Your task to perform on an android device: Go to ESPN.com Image 0: 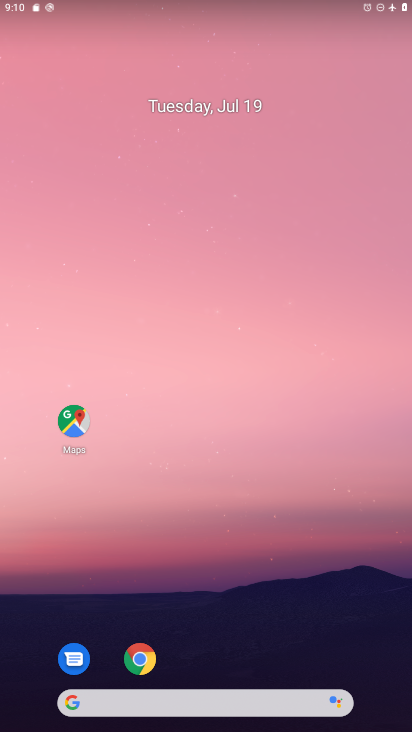
Step 0: drag from (245, 639) to (243, 282)
Your task to perform on an android device: Go to ESPN.com Image 1: 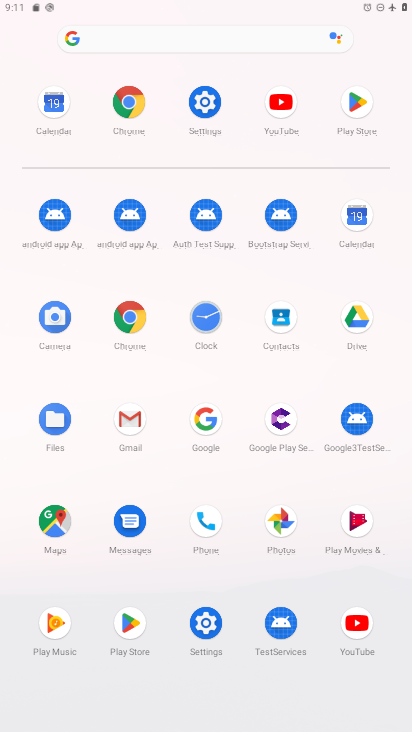
Step 1: click (137, 99)
Your task to perform on an android device: Go to ESPN.com Image 2: 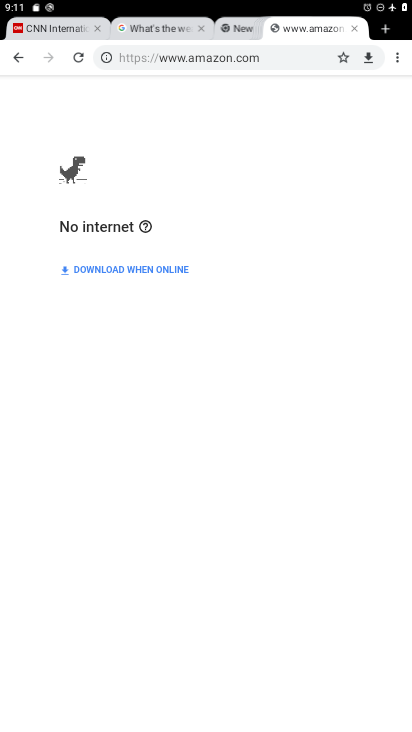
Step 2: click (385, 35)
Your task to perform on an android device: Go to ESPN.com Image 3: 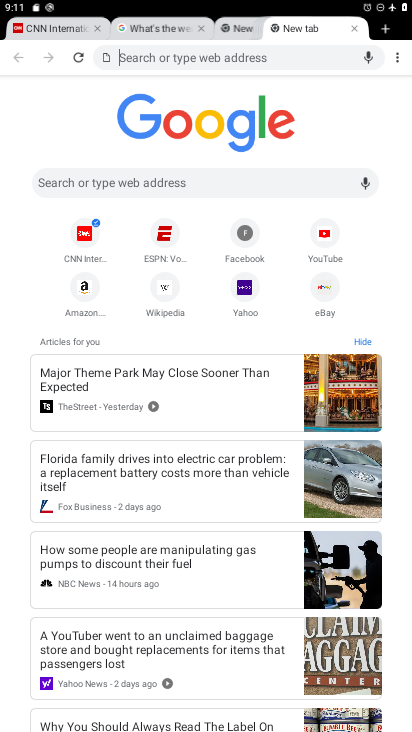
Step 3: click (167, 238)
Your task to perform on an android device: Go to ESPN.com Image 4: 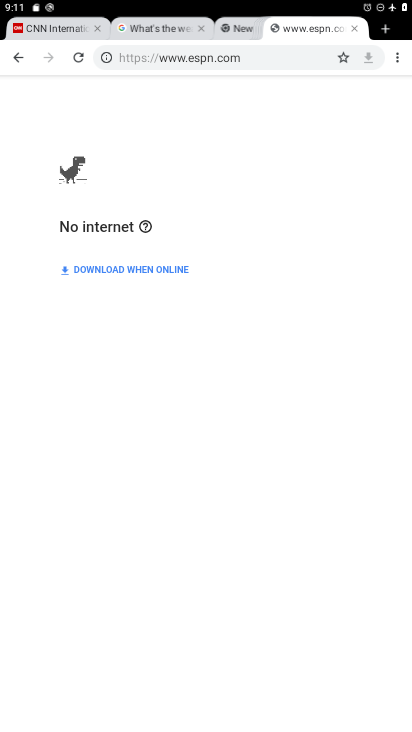
Step 4: task complete